Your task to perform on an android device: Go to Wikipedia Image 0: 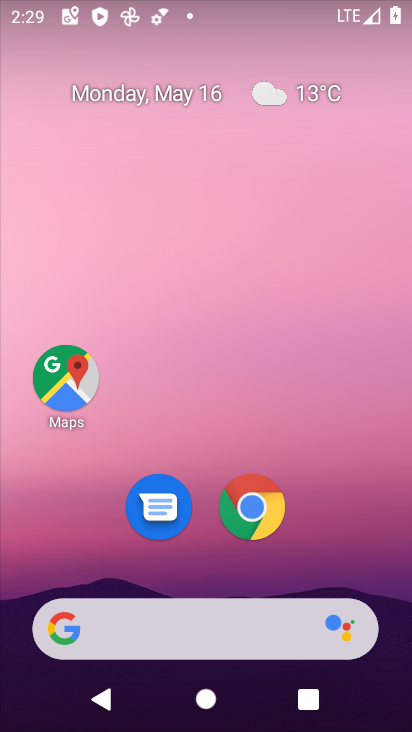
Step 0: click (249, 500)
Your task to perform on an android device: Go to Wikipedia Image 1: 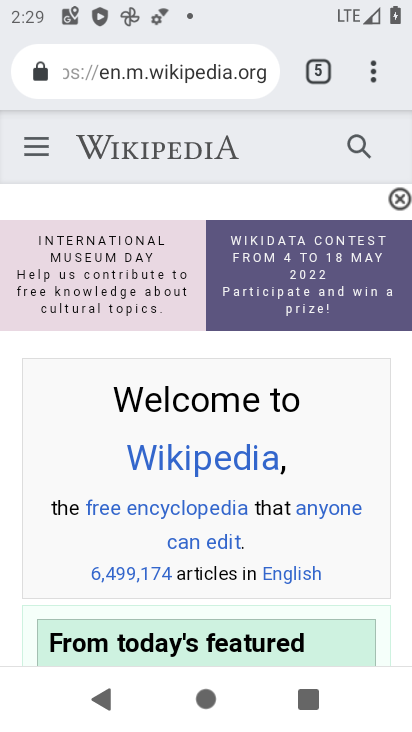
Step 1: task complete